Your task to perform on an android device: Go to internet settings Image 0: 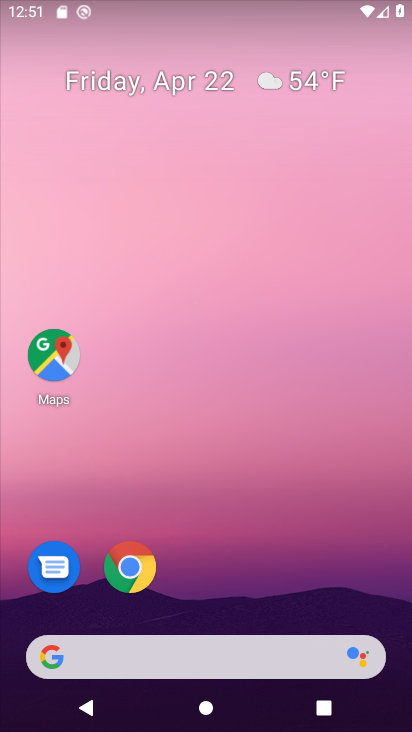
Step 0: drag from (224, 619) to (408, 146)
Your task to perform on an android device: Go to internet settings Image 1: 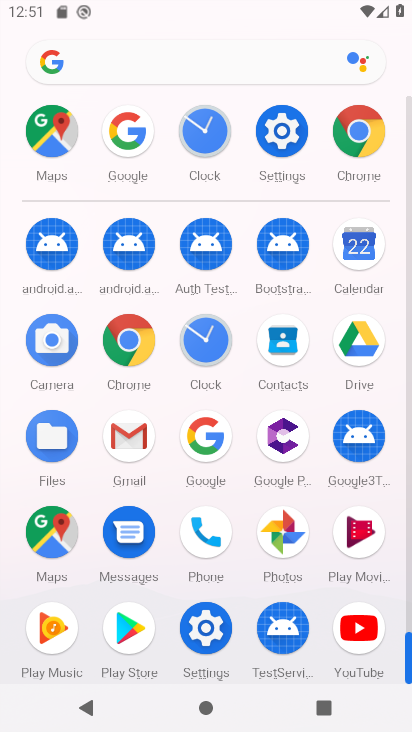
Step 1: click (294, 148)
Your task to perform on an android device: Go to internet settings Image 2: 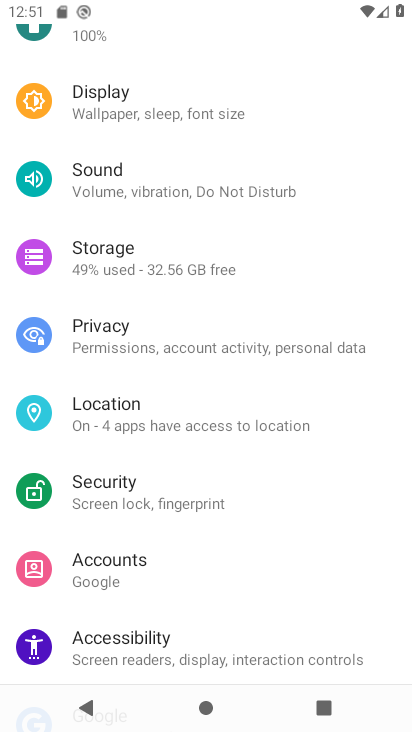
Step 2: drag from (235, 166) to (164, 655)
Your task to perform on an android device: Go to internet settings Image 3: 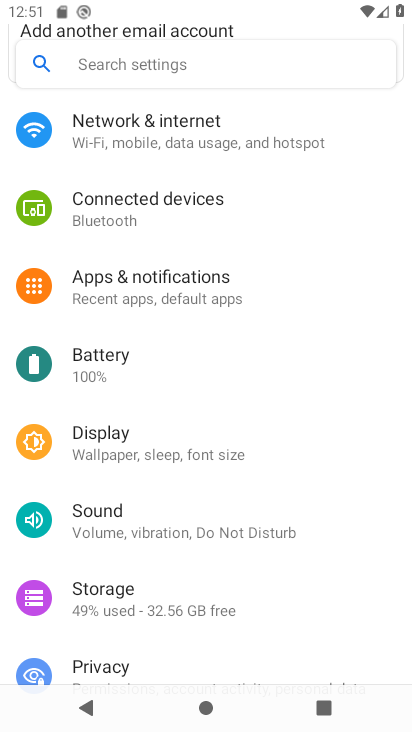
Step 3: drag from (241, 226) to (203, 484)
Your task to perform on an android device: Go to internet settings Image 4: 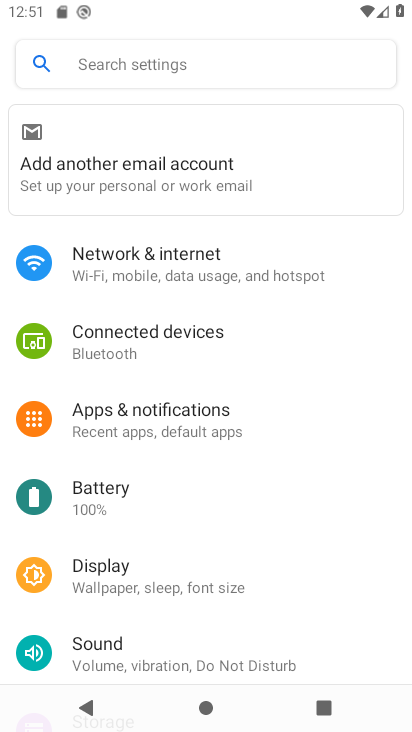
Step 4: click (263, 258)
Your task to perform on an android device: Go to internet settings Image 5: 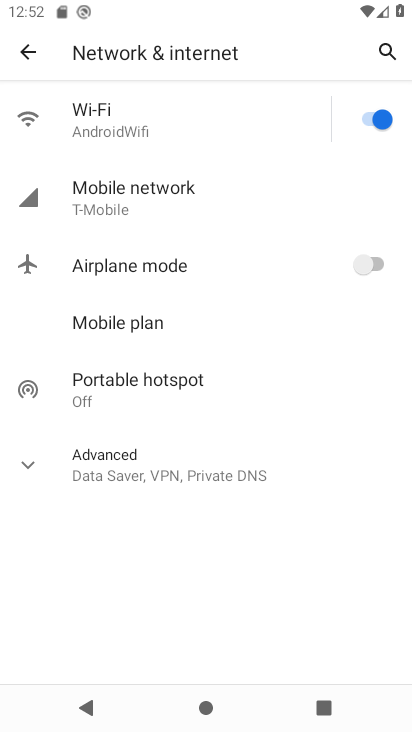
Step 5: click (169, 213)
Your task to perform on an android device: Go to internet settings Image 6: 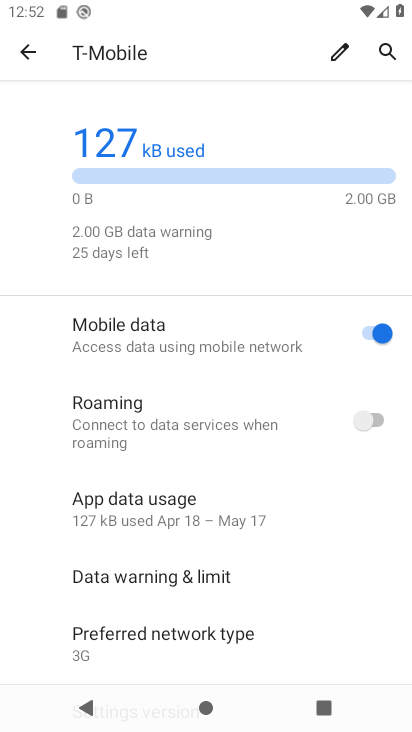
Step 6: task complete